Your task to perform on an android device: Open Google Maps and go to "Timeline" Image 0: 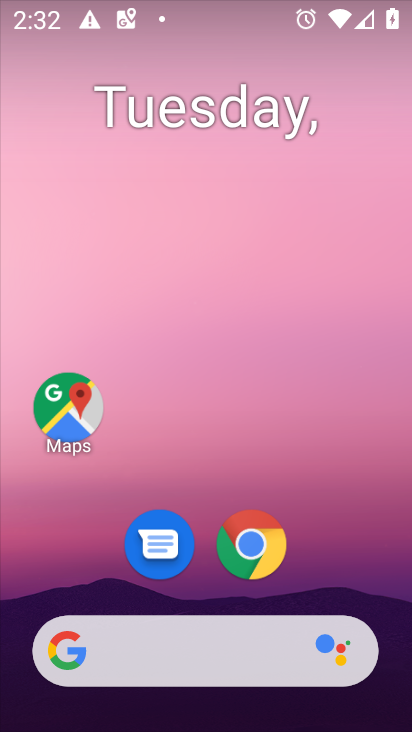
Step 0: drag from (329, 556) to (324, 88)
Your task to perform on an android device: Open Google Maps and go to "Timeline" Image 1: 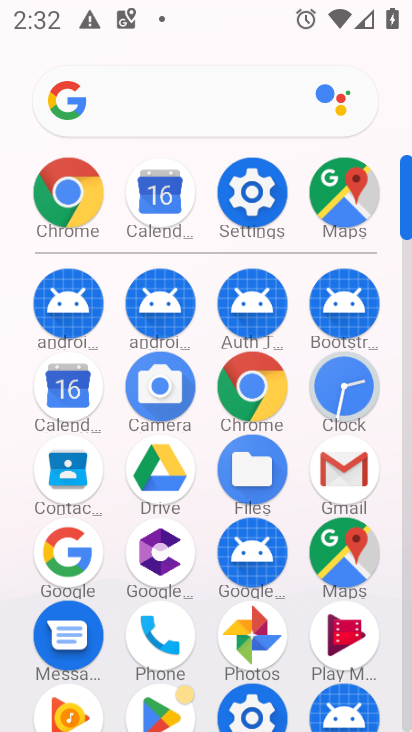
Step 1: click (341, 535)
Your task to perform on an android device: Open Google Maps and go to "Timeline" Image 2: 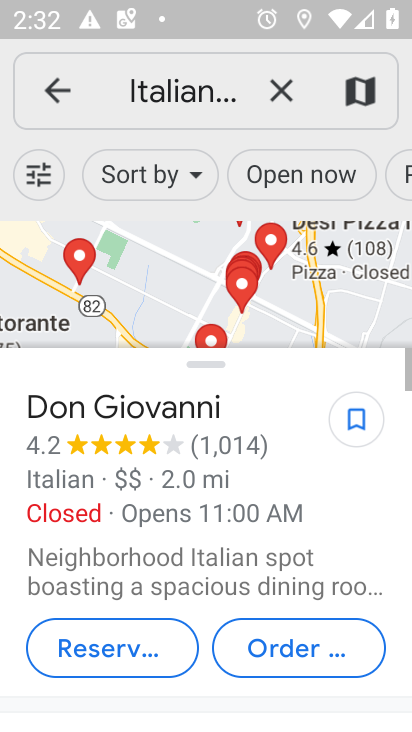
Step 2: click (31, 81)
Your task to perform on an android device: Open Google Maps and go to "Timeline" Image 3: 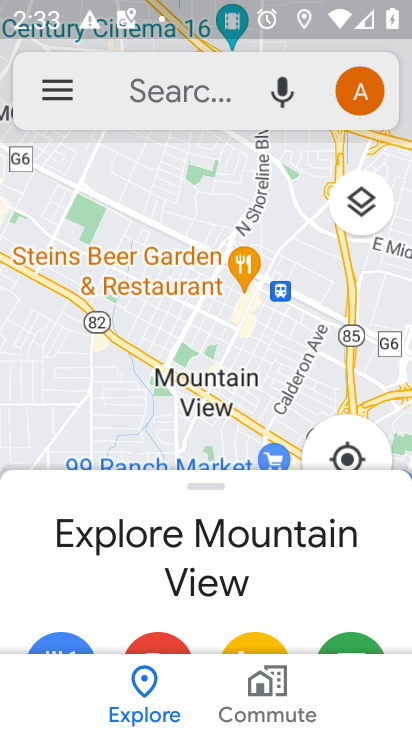
Step 3: click (45, 92)
Your task to perform on an android device: Open Google Maps and go to "Timeline" Image 4: 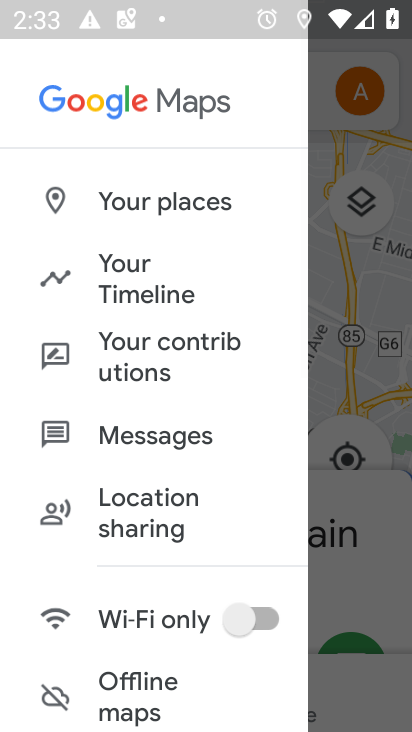
Step 4: drag from (124, 637) to (165, 64)
Your task to perform on an android device: Open Google Maps and go to "Timeline" Image 5: 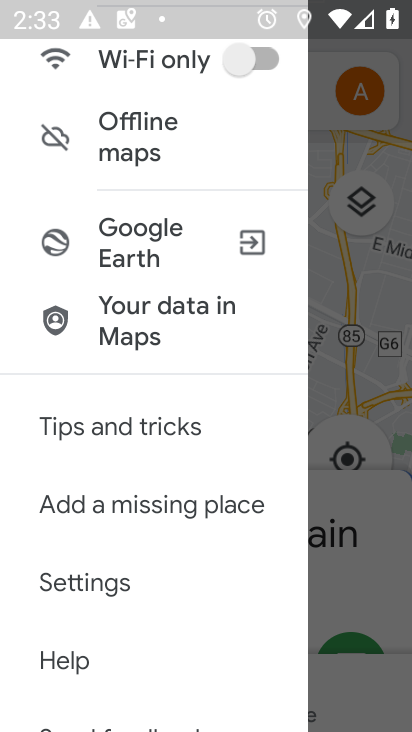
Step 5: drag from (121, 613) to (189, 272)
Your task to perform on an android device: Open Google Maps and go to "Timeline" Image 6: 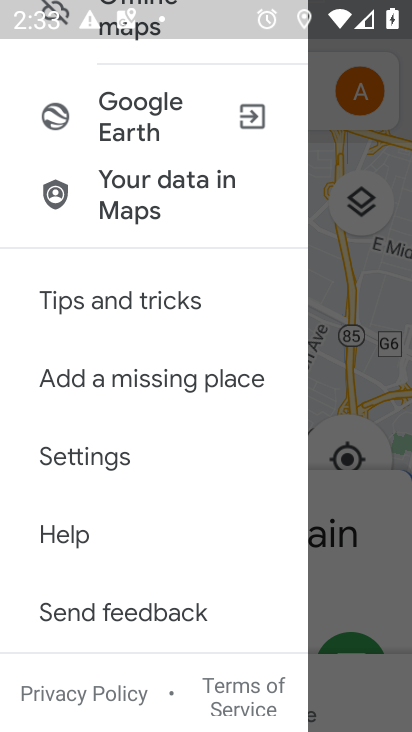
Step 6: drag from (171, 218) to (155, 730)
Your task to perform on an android device: Open Google Maps and go to "Timeline" Image 7: 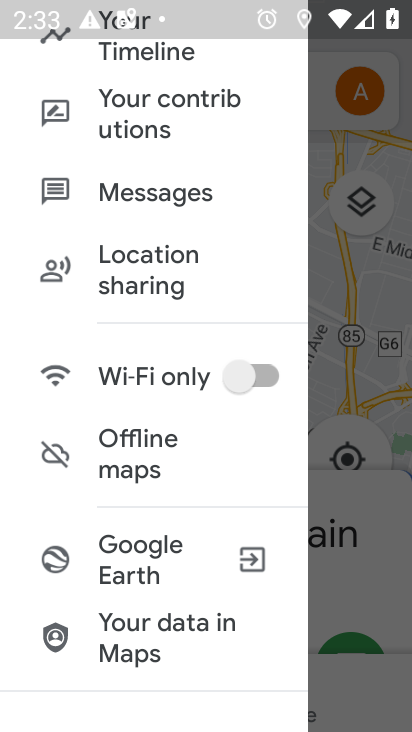
Step 7: drag from (159, 257) to (143, 594)
Your task to perform on an android device: Open Google Maps and go to "Timeline" Image 8: 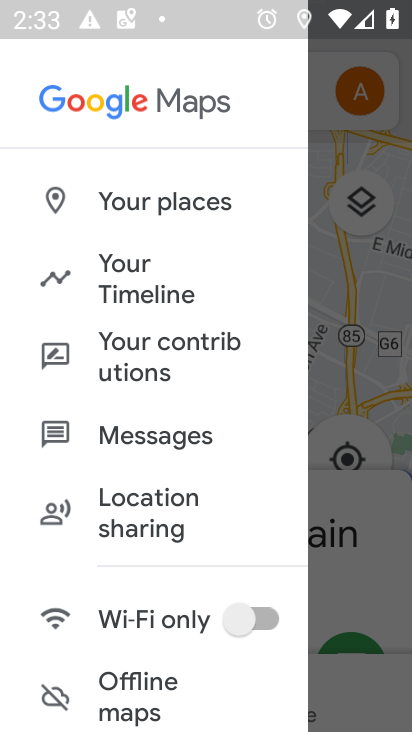
Step 8: click (138, 306)
Your task to perform on an android device: Open Google Maps and go to "Timeline" Image 9: 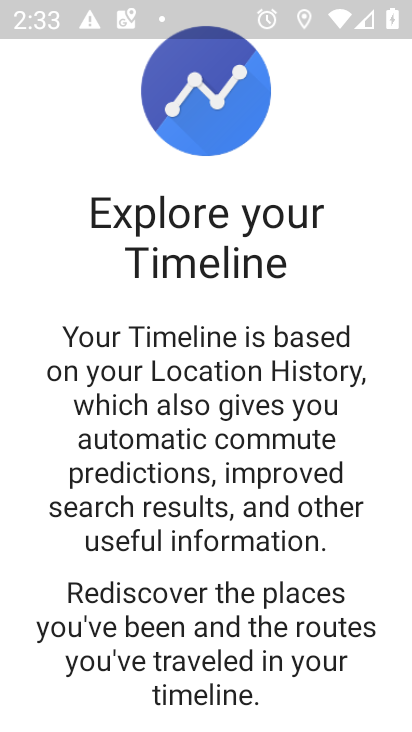
Step 9: drag from (253, 609) to (359, 1)
Your task to perform on an android device: Open Google Maps and go to "Timeline" Image 10: 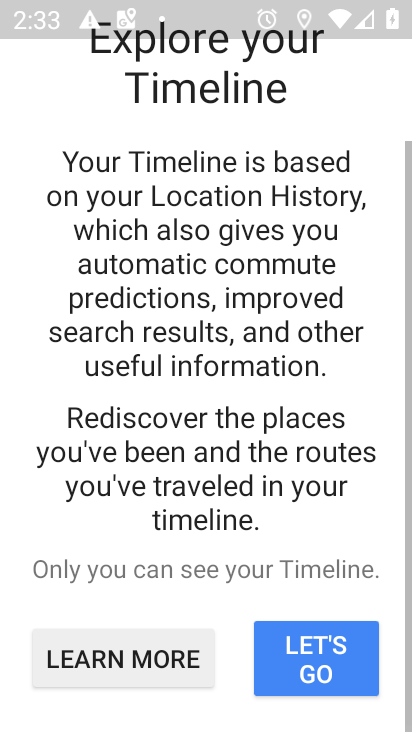
Step 10: click (353, 669)
Your task to perform on an android device: Open Google Maps and go to "Timeline" Image 11: 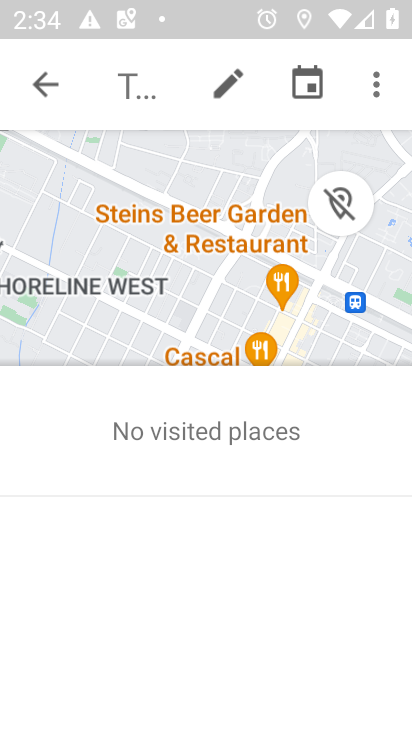
Step 11: task complete